Your task to perform on an android device: open app "DoorDash - Dasher" (install if not already installed) Image 0: 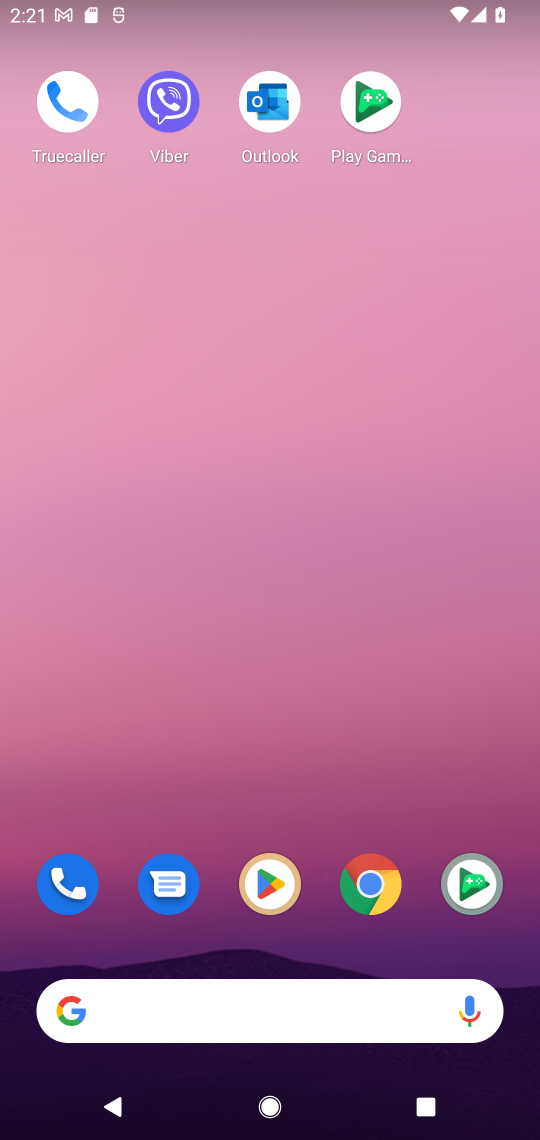
Step 0: click (266, 880)
Your task to perform on an android device: open app "DoorDash - Dasher" (install if not already installed) Image 1: 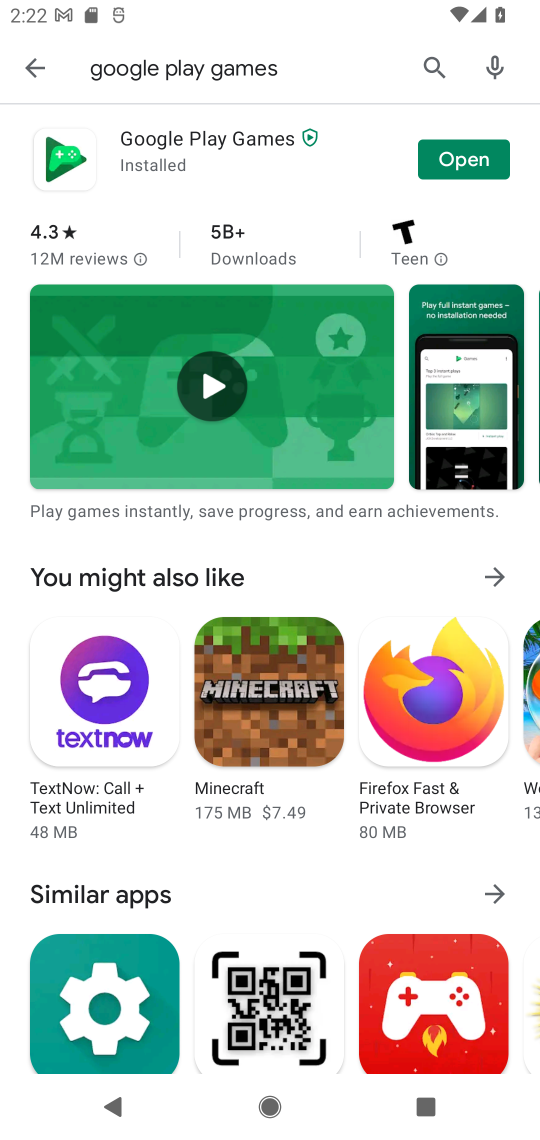
Step 1: click (437, 63)
Your task to perform on an android device: open app "DoorDash - Dasher" (install if not already installed) Image 2: 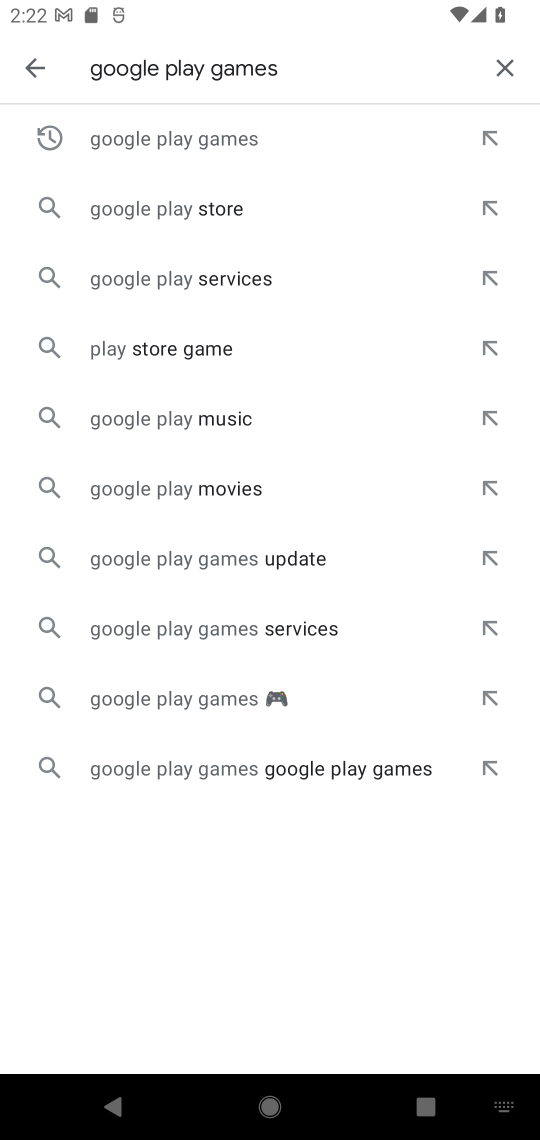
Step 2: click (505, 66)
Your task to perform on an android device: open app "DoorDash - Dasher" (install if not already installed) Image 3: 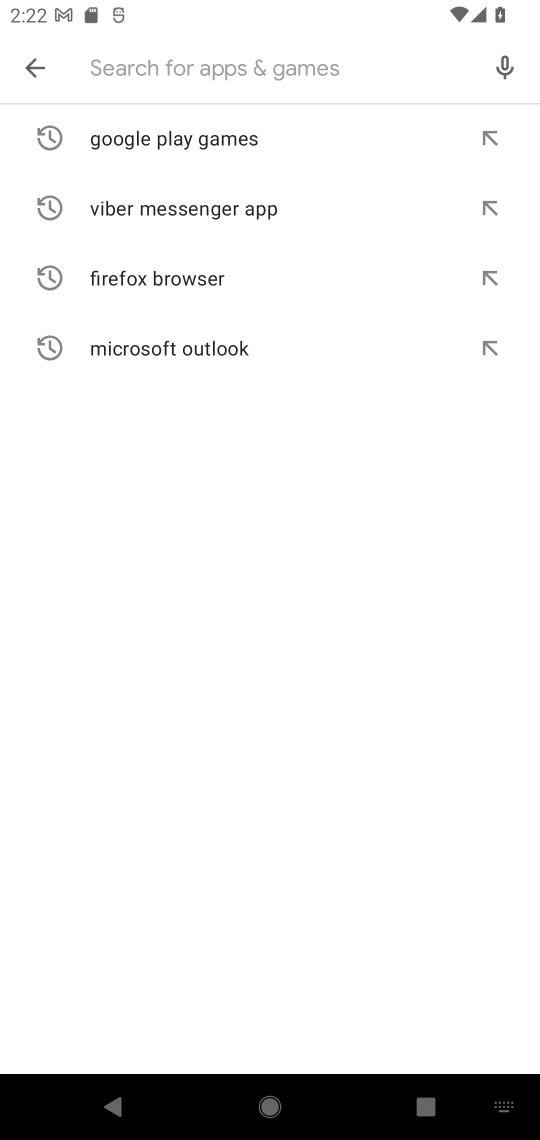
Step 3: type "doordash- dasher"
Your task to perform on an android device: open app "DoorDash - Dasher" (install if not already installed) Image 4: 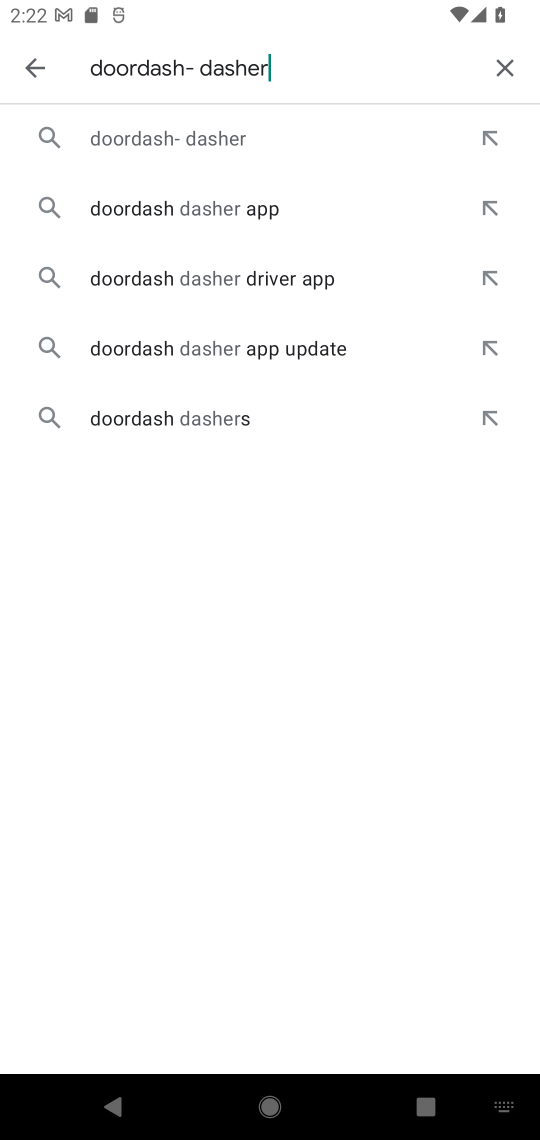
Step 4: click (192, 131)
Your task to perform on an android device: open app "DoorDash - Dasher" (install if not already installed) Image 5: 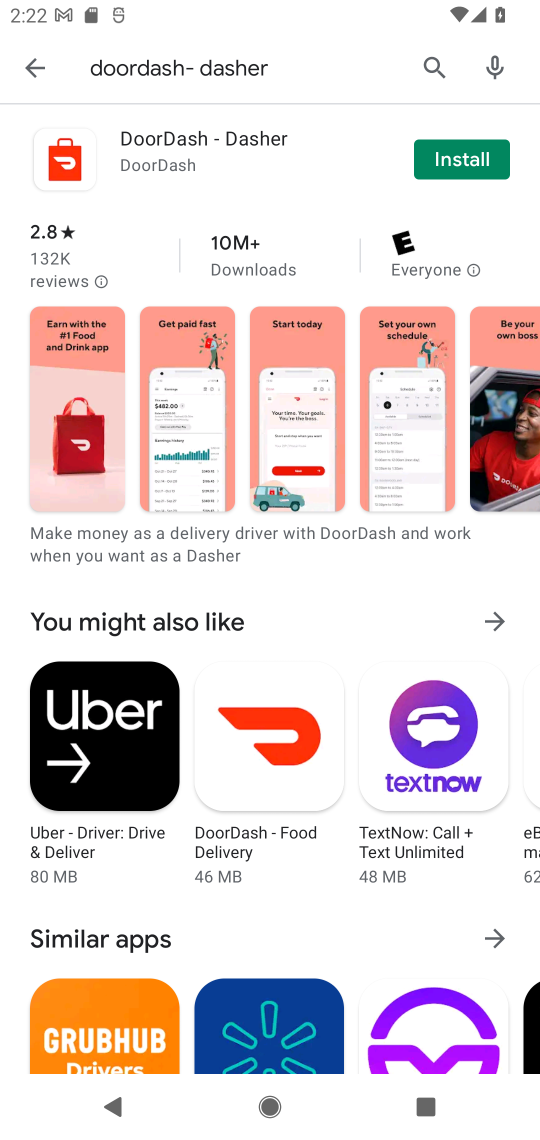
Step 5: click (460, 157)
Your task to perform on an android device: open app "DoorDash - Dasher" (install if not already installed) Image 6: 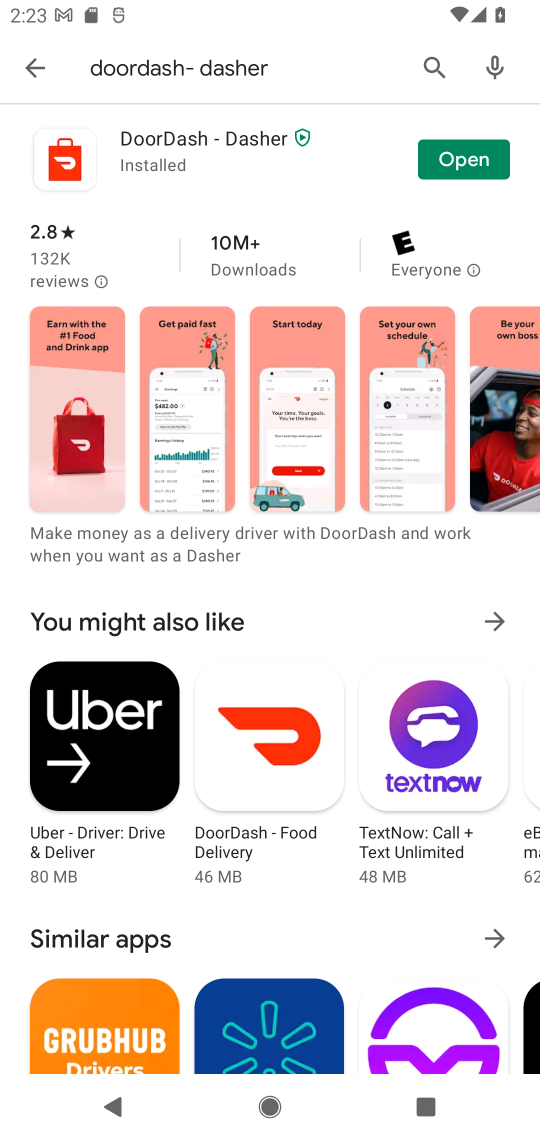
Step 6: click (463, 157)
Your task to perform on an android device: open app "DoorDash - Dasher" (install if not already installed) Image 7: 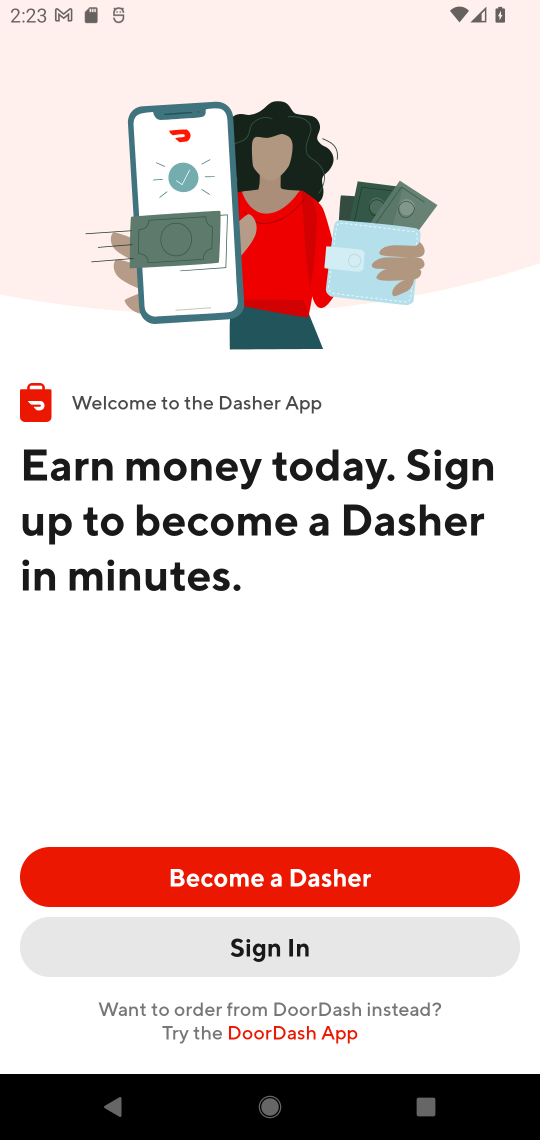
Step 7: task complete